Your task to perform on an android device: empty trash in the gmail app Image 0: 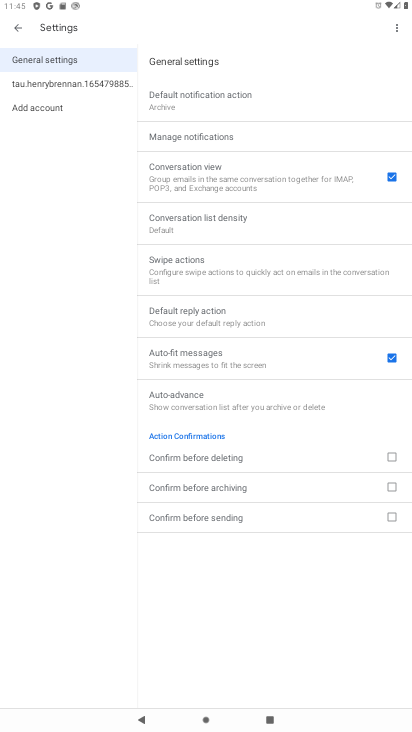
Step 0: press home button
Your task to perform on an android device: empty trash in the gmail app Image 1: 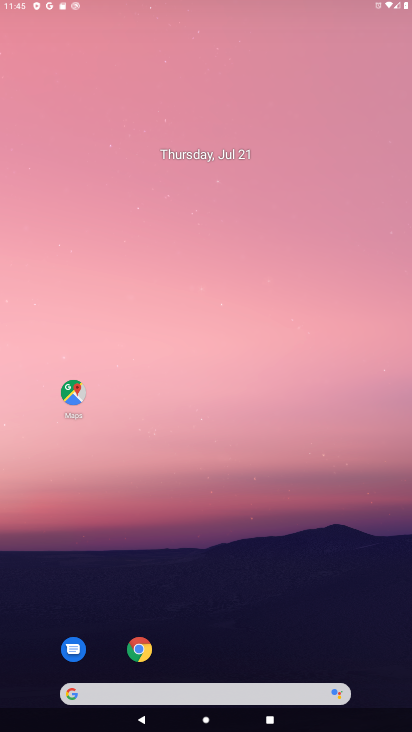
Step 1: drag from (291, 642) to (270, 24)
Your task to perform on an android device: empty trash in the gmail app Image 2: 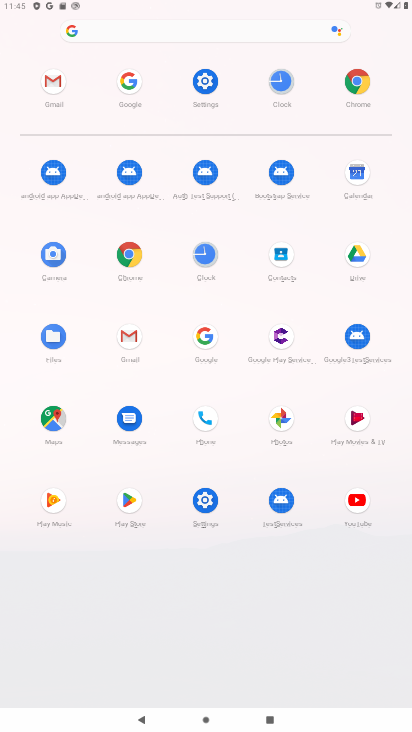
Step 2: click (53, 76)
Your task to perform on an android device: empty trash in the gmail app Image 3: 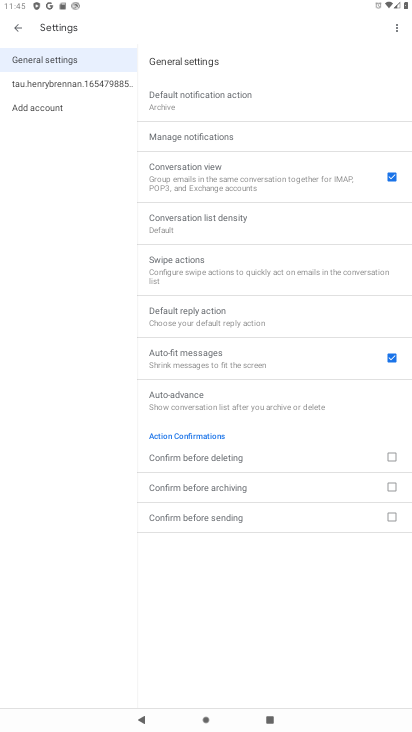
Step 3: click (17, 28)
Your task to perform on an android device: empty trash in the gmail app Image 4: 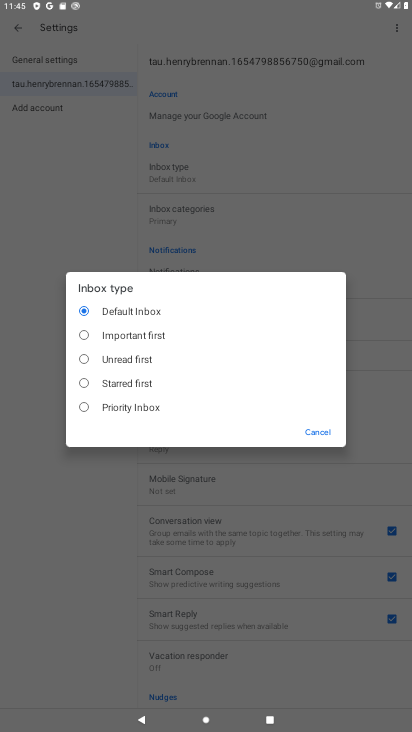
Step 4: click (305, 208)
Your task to perform on an android device: empty trash in the gmail app Image 5: 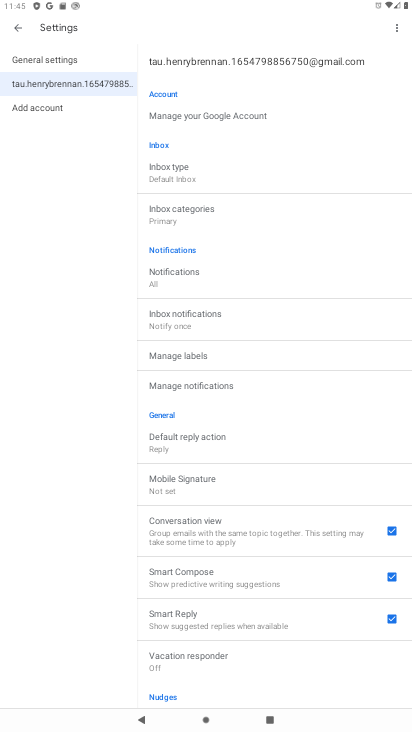
Step 5: click (20, 34)
Your task to perform on an android device: empty trash in the gmail app Image 6: 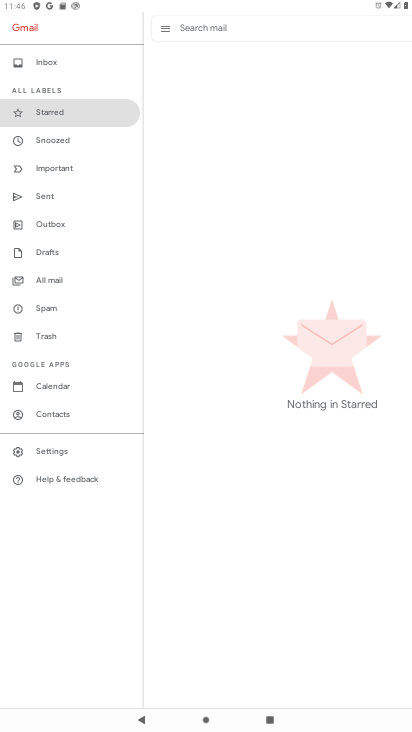
Step 6: click (48, 333)
Your task to perform on an android device: empty trash in the gmail app Image 7: 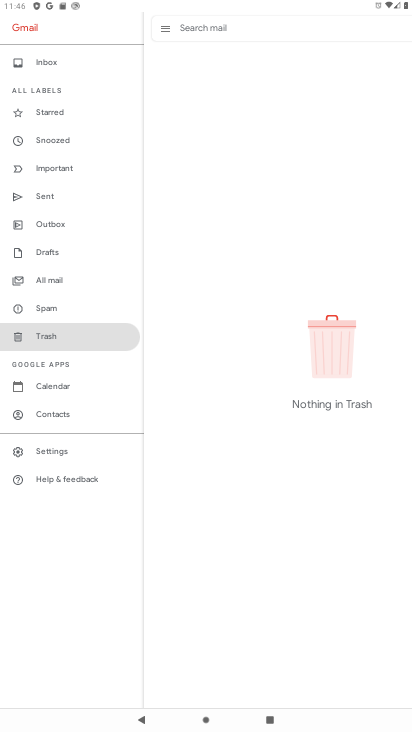
Step 7: click (48, 332)
Your task to perform on an android device: empty trash in the gmail app Image 8: 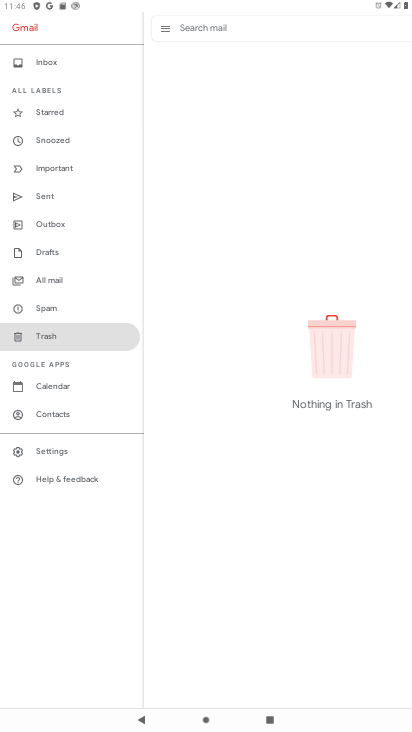
Step 8: task complete